Your task to perform on an android device: Show me recent news Image 0: 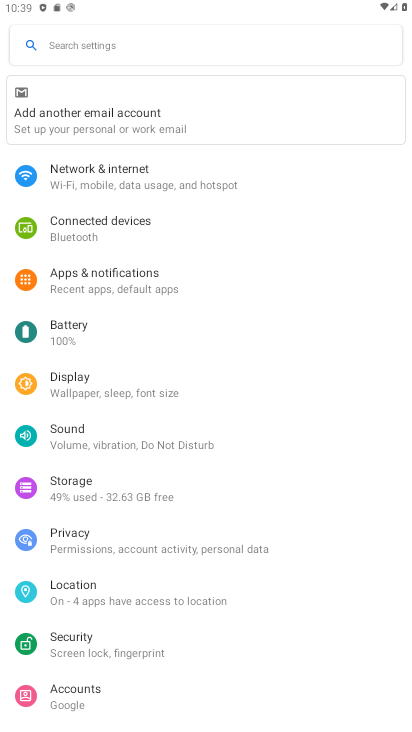
Step 0: press home button
Your task to perform on an android device: Show me recent news Image 1: 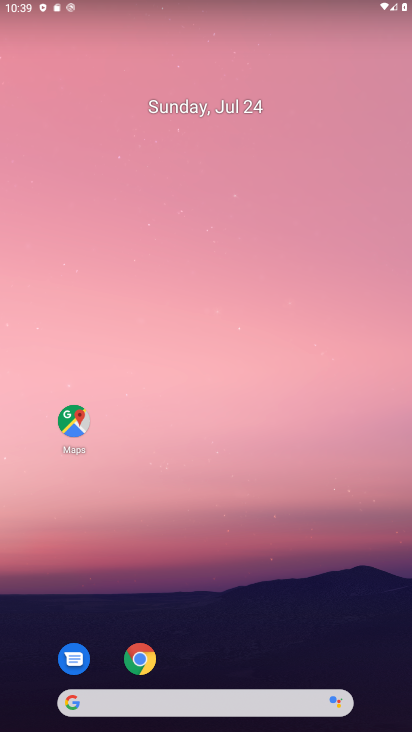
Step 1: click (140, 648)
Your task to perform on an android device: Show me recent news Image 2: 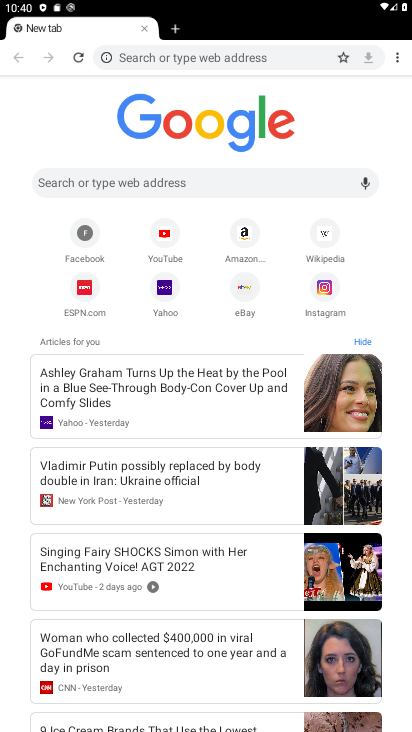
Step 2: click (223, 57)
Your task to perform on an android device: Show me recent news Image 3: 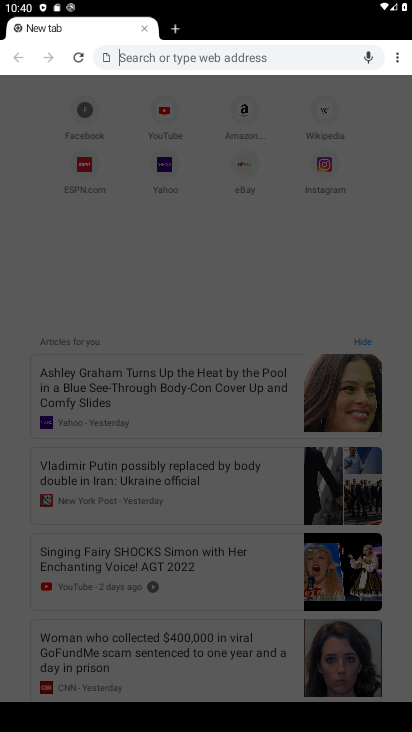
Step 3: type "Show me recent news"
Your task to perform on an android device: Show me recent news Image 4: 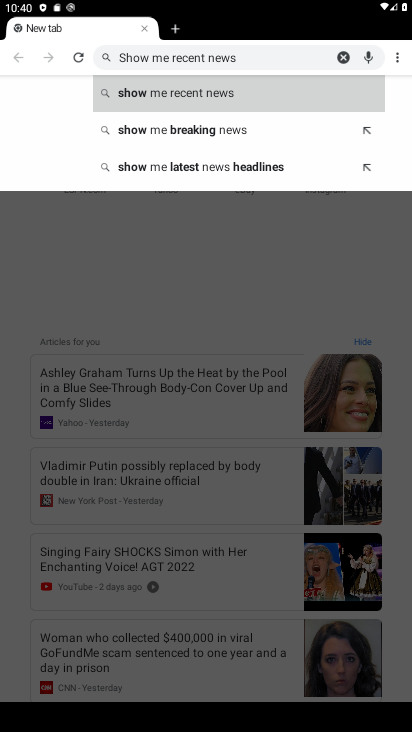
Step 4: click (243, 89)
Your task to perform on an android device: Show me recent news Image 5: 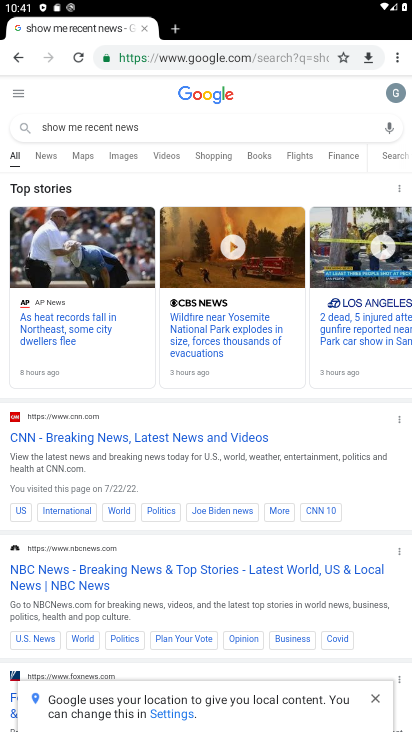
Step 5: task complete